Your task to perform on an android device: install app "NewsBreak: Local News & Alerts" Image 0: 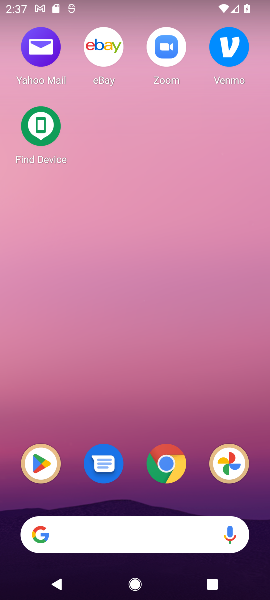
Step 0: click (38, 461)
Your task to perform on an android device: install app "NewsBreak: Local News & Alerts" Image 1: 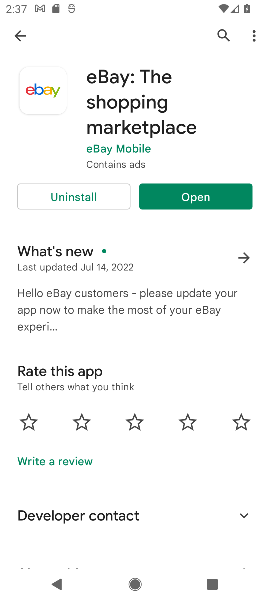
Step 1: click (221, 33)
Your task to perform on an android device: install app "NewsBreak: Local News & Alerts" Image 2: 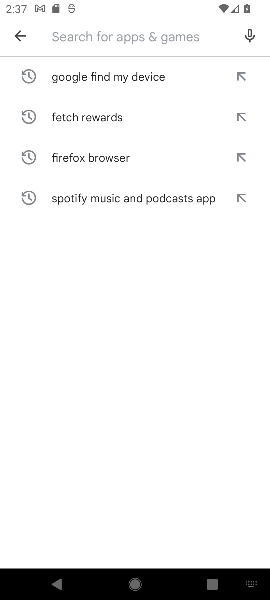
Step 2: type "NewsBreak: Local News & Alerts"
Your task to perform on an android device: install app "NewsBreak: Local News & Alerts" Image 3: 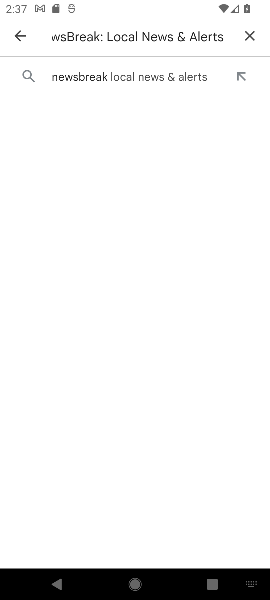
Step 3: click (140, 73)
Your task to perform on an android device: install app "NewsBreak: Local News & Alerts" Image 4: 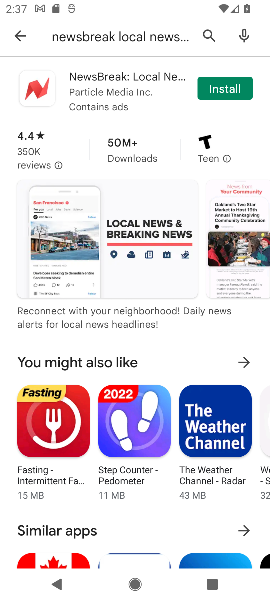
Step 4: click (214, 88)
Your task to perform on an android device: install app "NewsBreak: Local News & Alerts" Image 5: 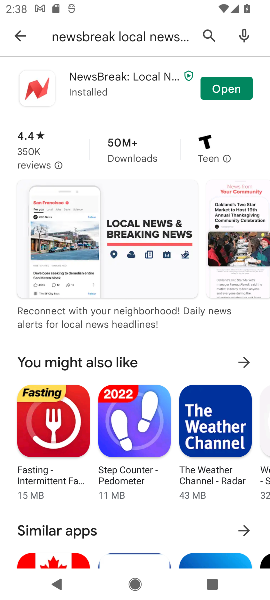
Step 5: task complete